Your task to perform on an android device: Show the shopping cart on amazon. Add "corsair k70" to the cart on amazon Image 0: 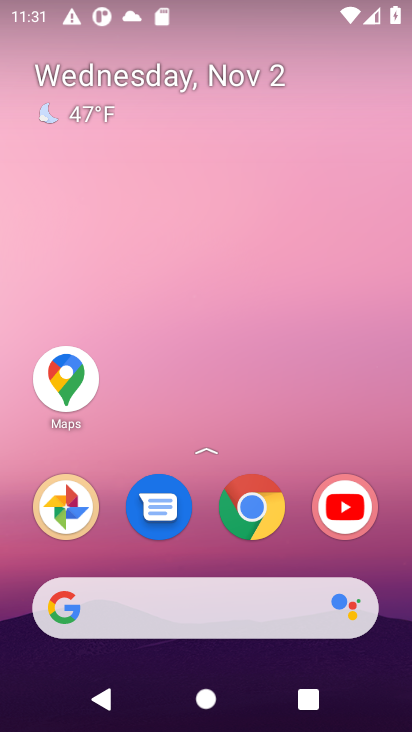
Step 0: click (163, 590)
Your task to perform on an android device: Show the shopping cart on amazon. Add "corsair k70" to the cart on amazon Image 1: 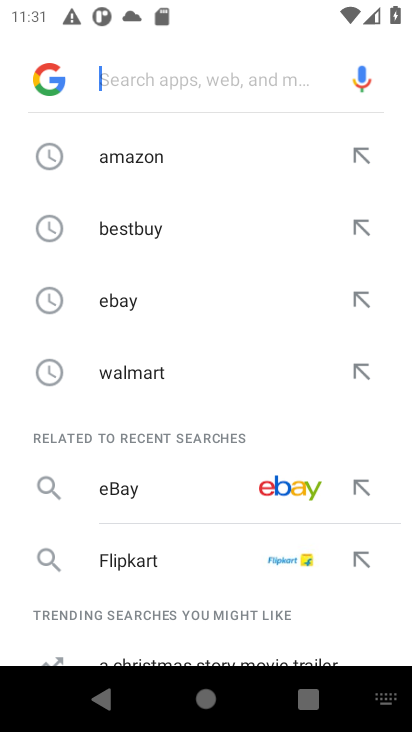
Step 1: click (199, 143)
Your task to perform on an android device: Show the shopping cart on amazon. Add "corsair k70" to the cart on amazon Image 2: 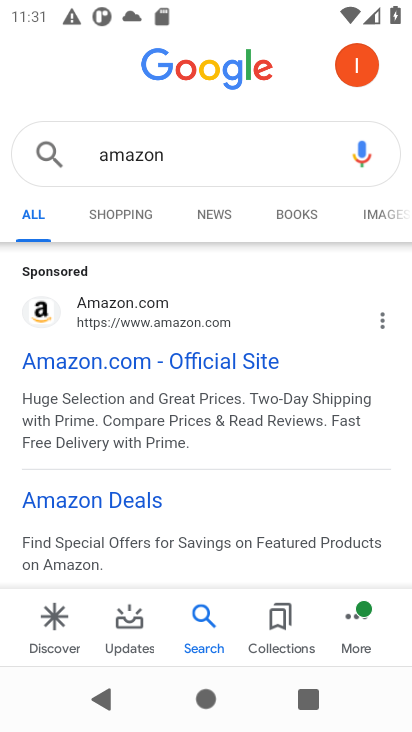
Step 2: click (153, 372)
Your task to perform on an android device: Show the shopping cart on amazon. Add "corsair k70" to the cart on amazon Image 3: 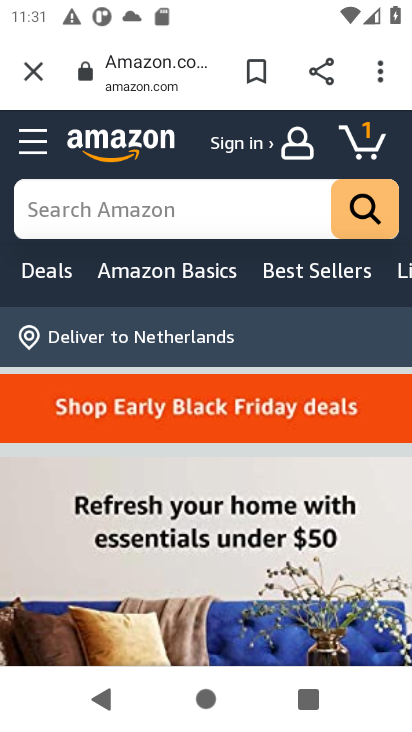
Step 3: click (203, 205)
Your task to perform on an android device: Show the shopping cart on amazon. Add "corsair k70" to the cart on amazon Image 4: 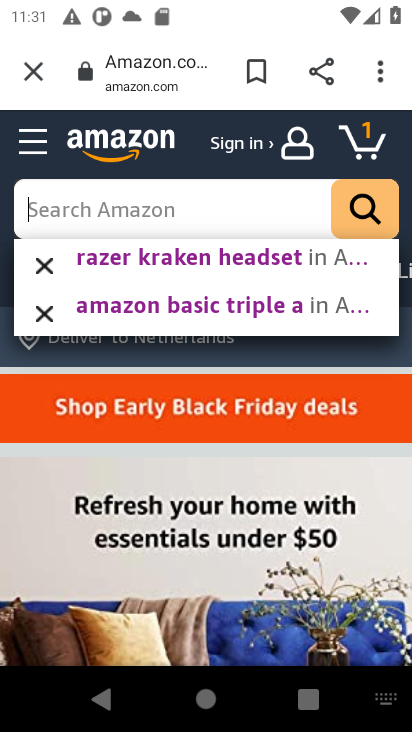
Step 4: type "corsair"
Your task to perform on an android device: Show the shopping cart on amazon. Add "corsair k70" to the cart on amazon Image 5: 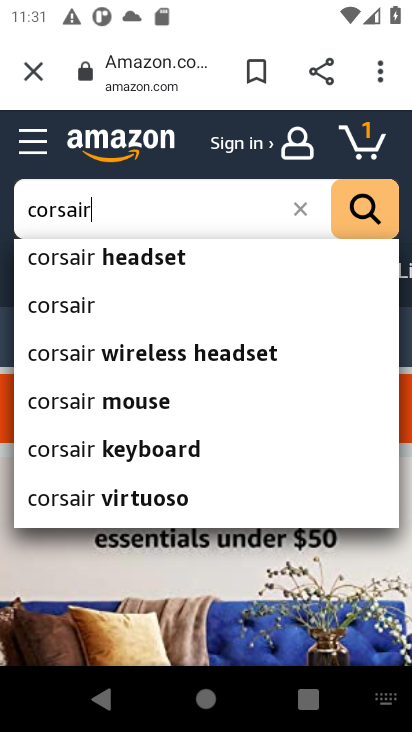
Step 5: click (267, 263)
Your task to perform on an android device: Show the shopping cart on amazon. Add "corsair k70" to the cart on amazon Image 6: 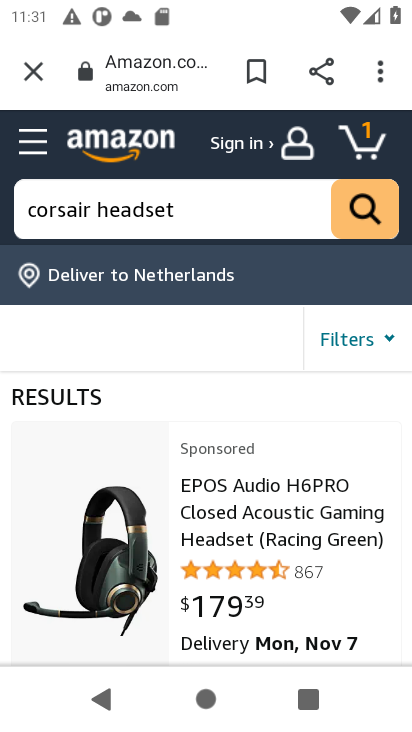
Step 6: click (271, 509)
Your task to perform on an android device: Show the shopping cart on amazon. Add "corsair k70" to the cart on amazon Image 7: 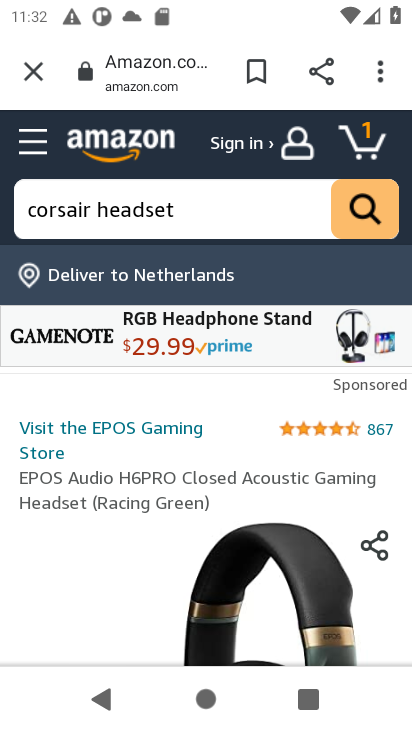
Step 7: drag from (150, 567) to (174, 83)
Your task to perform on an android device: Show the shopping cart on amazon. Add "corsair k70" to the cart on amazon Image 8: 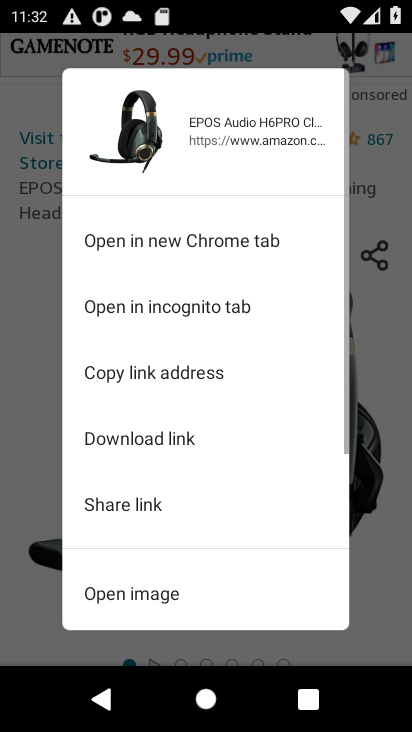
Step 8: click (29, 571)
Your task to perform on an android device: Show the shopping cart on amazon. Add "corsair k70" to the cart on amazon Image 9: 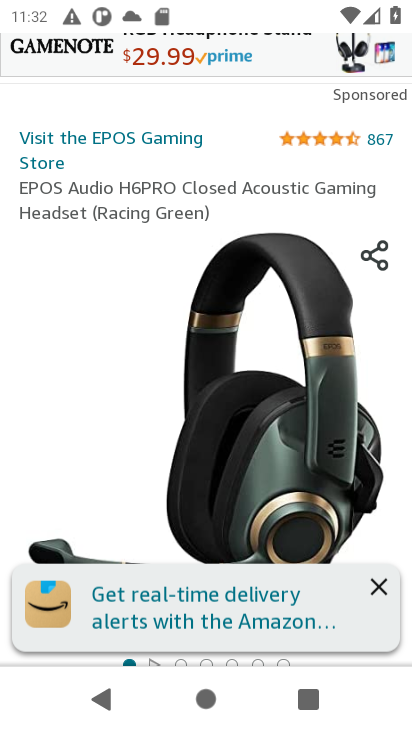
Step 9: drag from (29, 571) to (34, 182)
Your task to perform on an android device: Show the shopping cart on amazon. Add "corsair k70" to the cart on amazon Image 10: 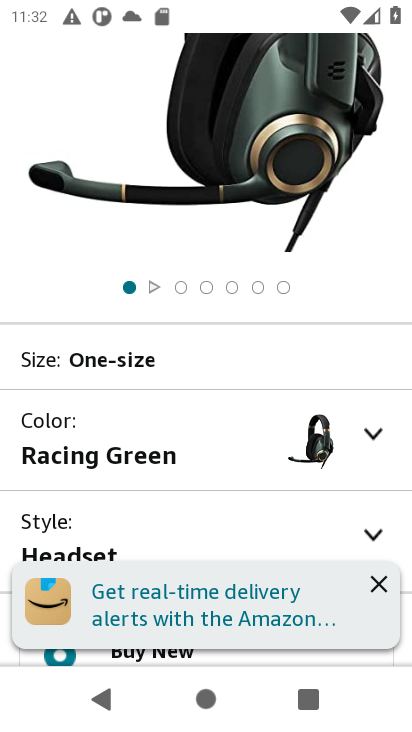
Step 10: click (376, 580)
Your task to perform on an android device: Show the shopping cart on amazon. Add "corsair k70" to the cart on amazon Image 11: 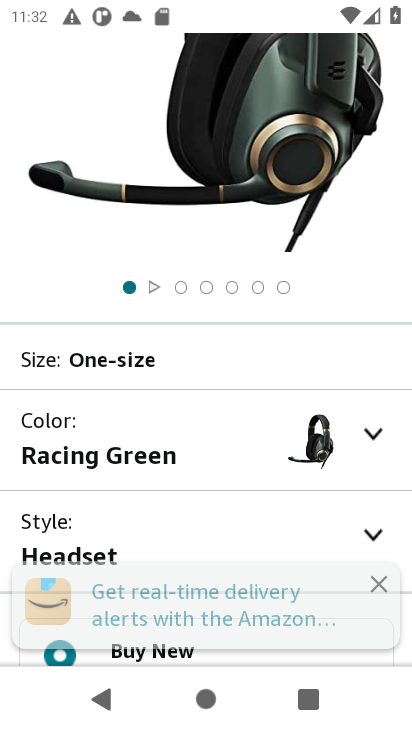
Step 11: task complete